Your task to perform on an android device: set the stopwatch Image 0: 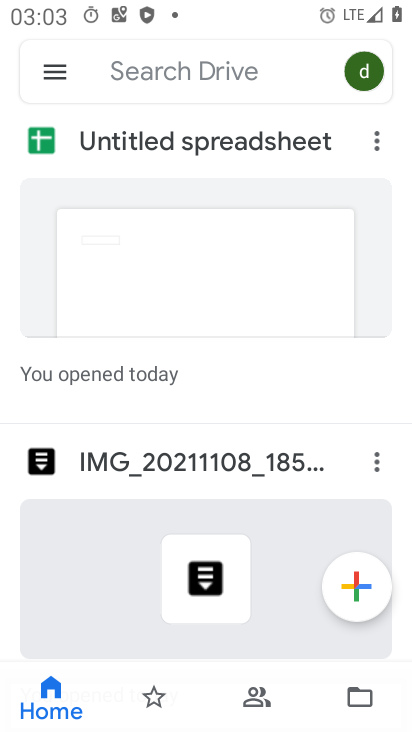
Step 0: press back button
Your task to perform on an android device: set the stopwatch Image 1: 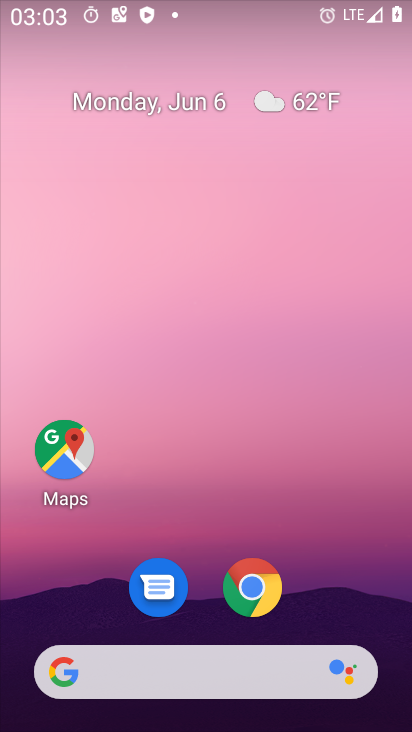
Step 1: drag from (359, 594) to (227, 65)
Your task to perform on an android device: set the stopwatch Image 2: 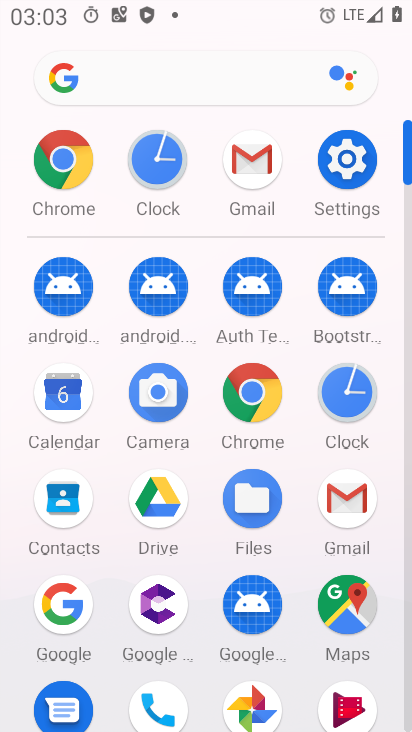
Step 2: click (346, 391)
Your task to perform on an android device: set the stopwatch Image 3: 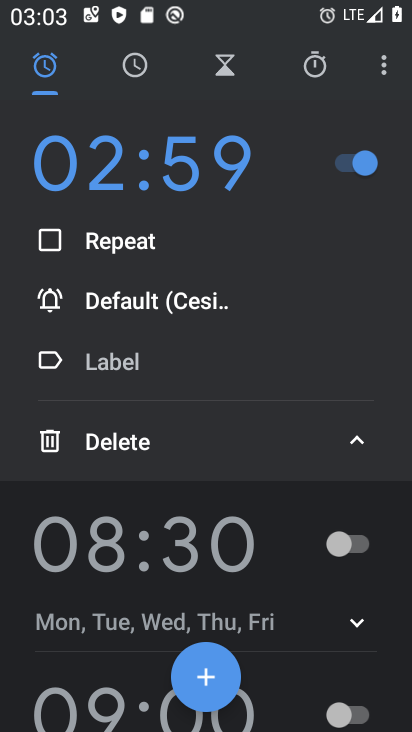
Step 3: click (317, 52)
Your task to perform on an android device: set the stopwatch Image 4: 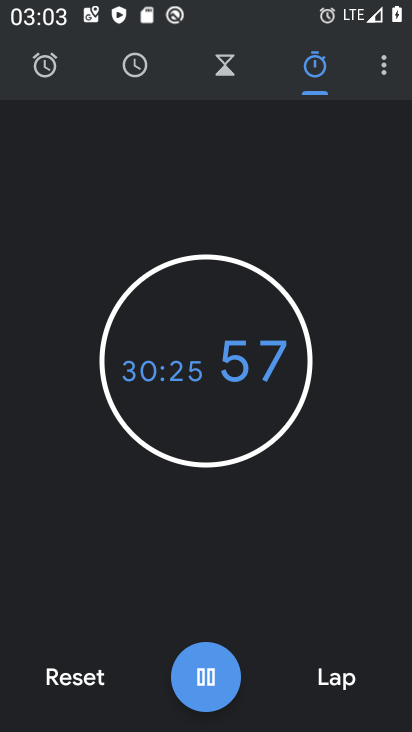
Step 4: click (61, 680)
Your task to perform on an android device: set the stopwatch Image 5: 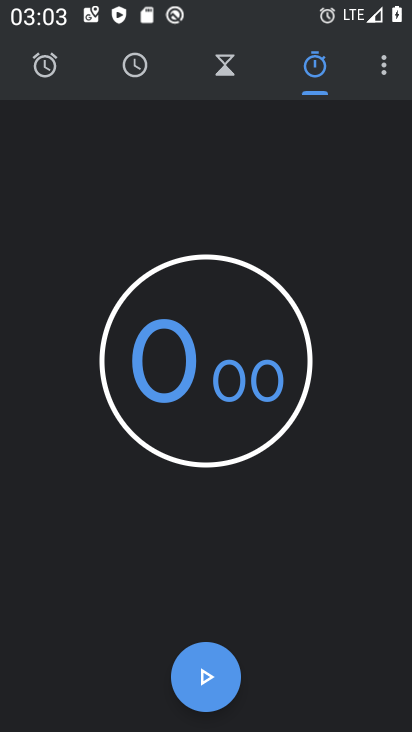
Step 5: task complete